Your task to perform on an android device: all mails in gmail Image 0: 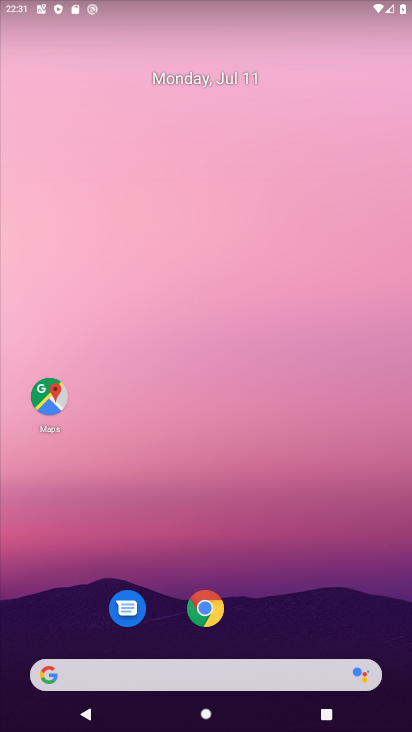
Step 0: drag from (16, 716) to (316, 8)
Your task to perform on an android device: all mails in gmail Image 1: 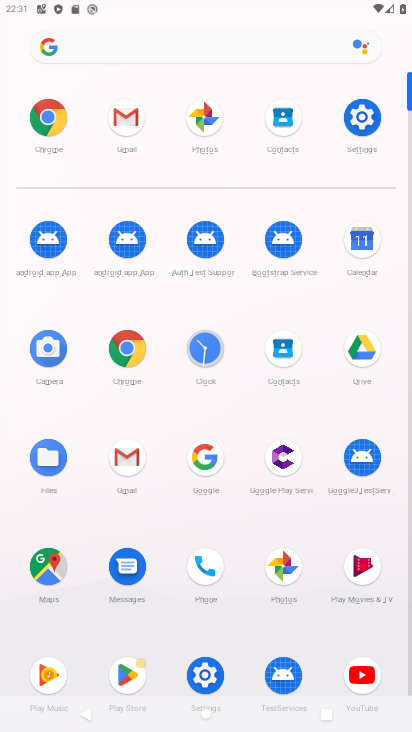
Step 1: click (135, 460)
Your task to perform on an android device: all mails in gmail Image 2: 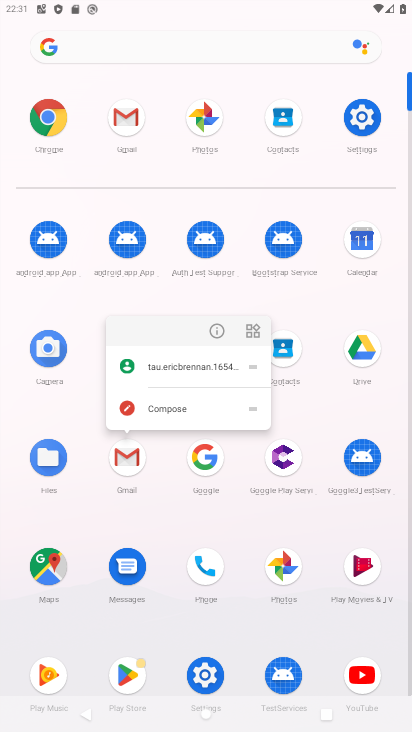
Step 2: click (103, 500)
Your task to perform on an android device: all mails in gmail Image 3: 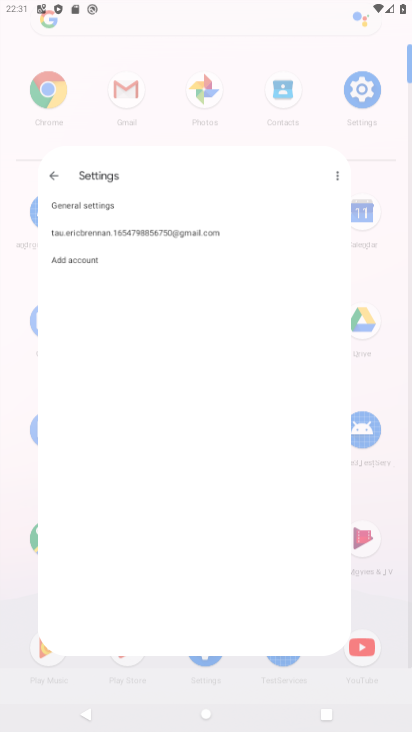
Step 3: click (127, 459)
Your task to perform on an android device: all mails in gmail Image 4: 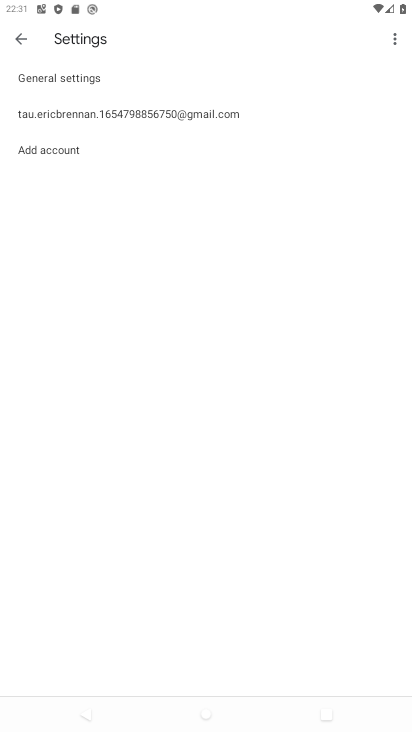
Step 4: click (28, 38)
Your task to perform on an android device: all mails in gmail Image 5: 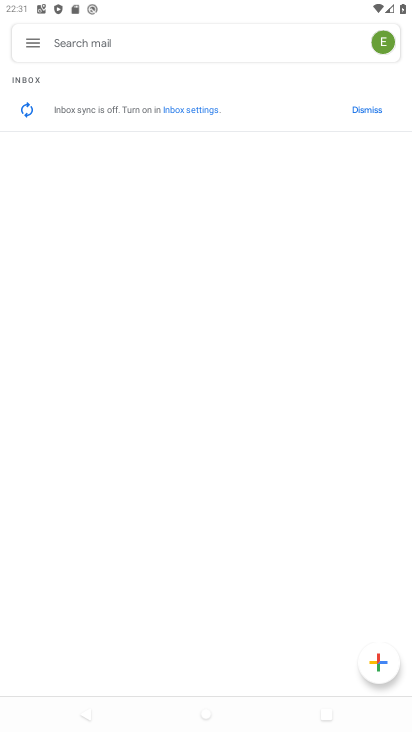
Step 5: click (31, 37)
Your task to perform on an android device: all mails in gmail Image 6: 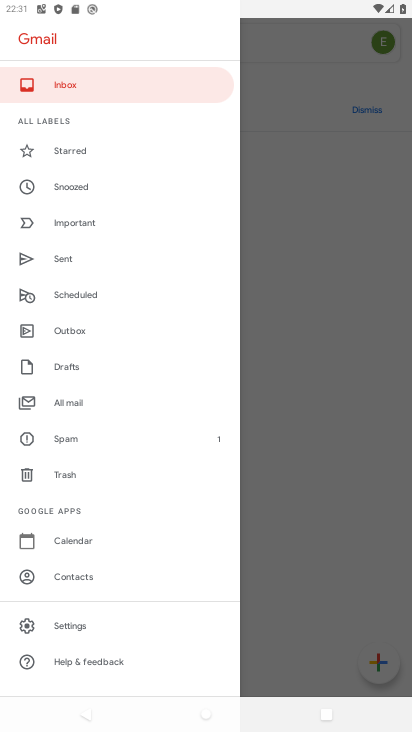
Step 6: click (66, 394)
Your task to perform on an android device: all mails in gmail Image 7: 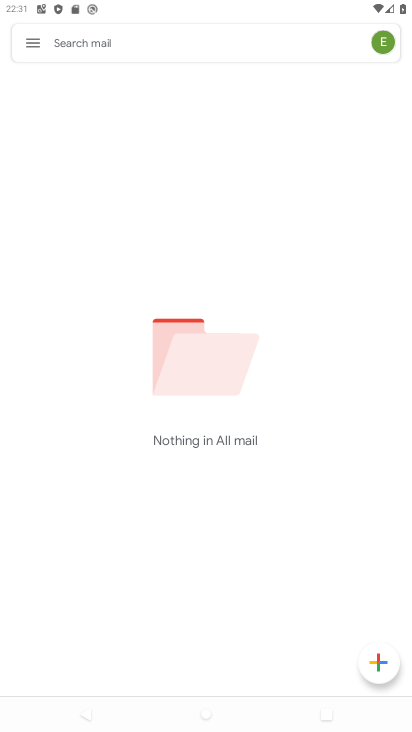
Step 7: task complete